Your task to perform on an android device: install app "Gmail" Image 0: 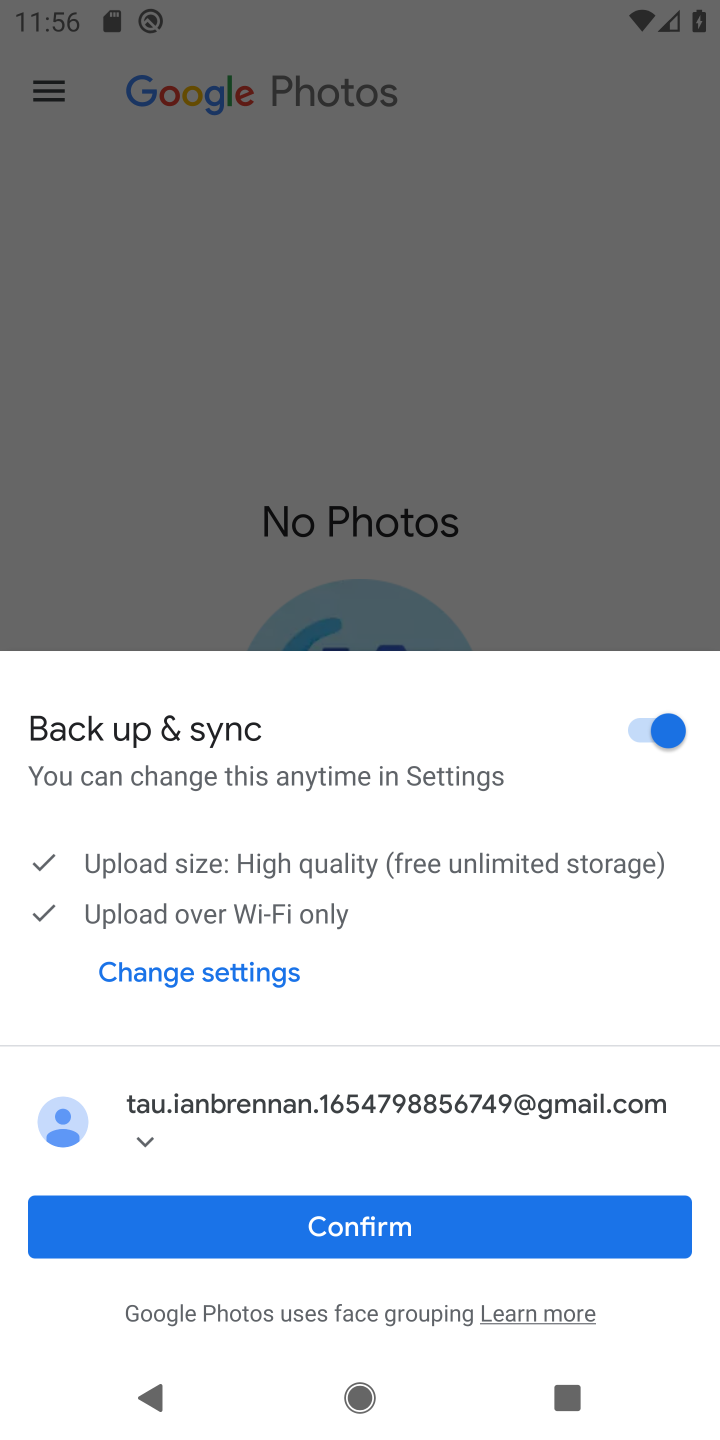
Step 0: press home button
Your task to perform on an android device: install app "Gmail" Image 1: 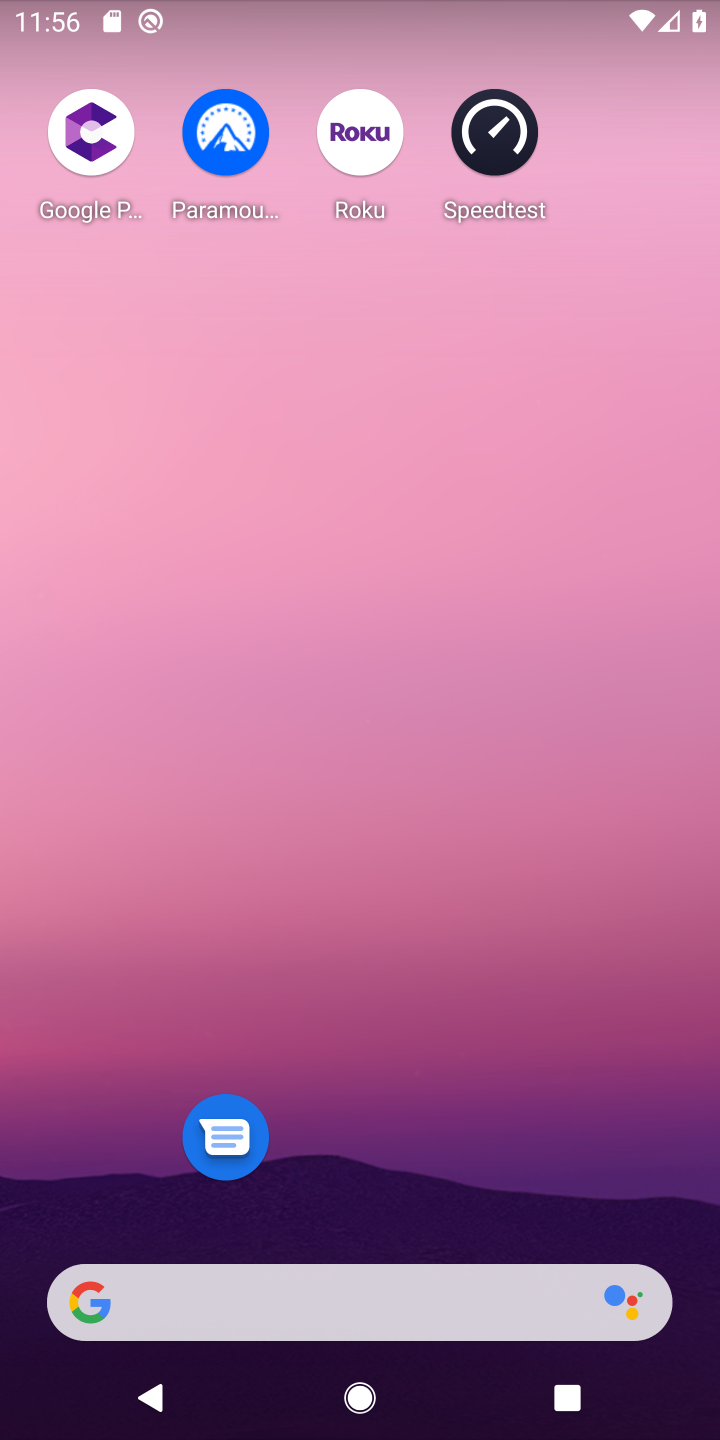
Step 1: drag from (463, 1000) to (525, 555)
Your task to perform on an android device: install app "Gmail" Image 2: 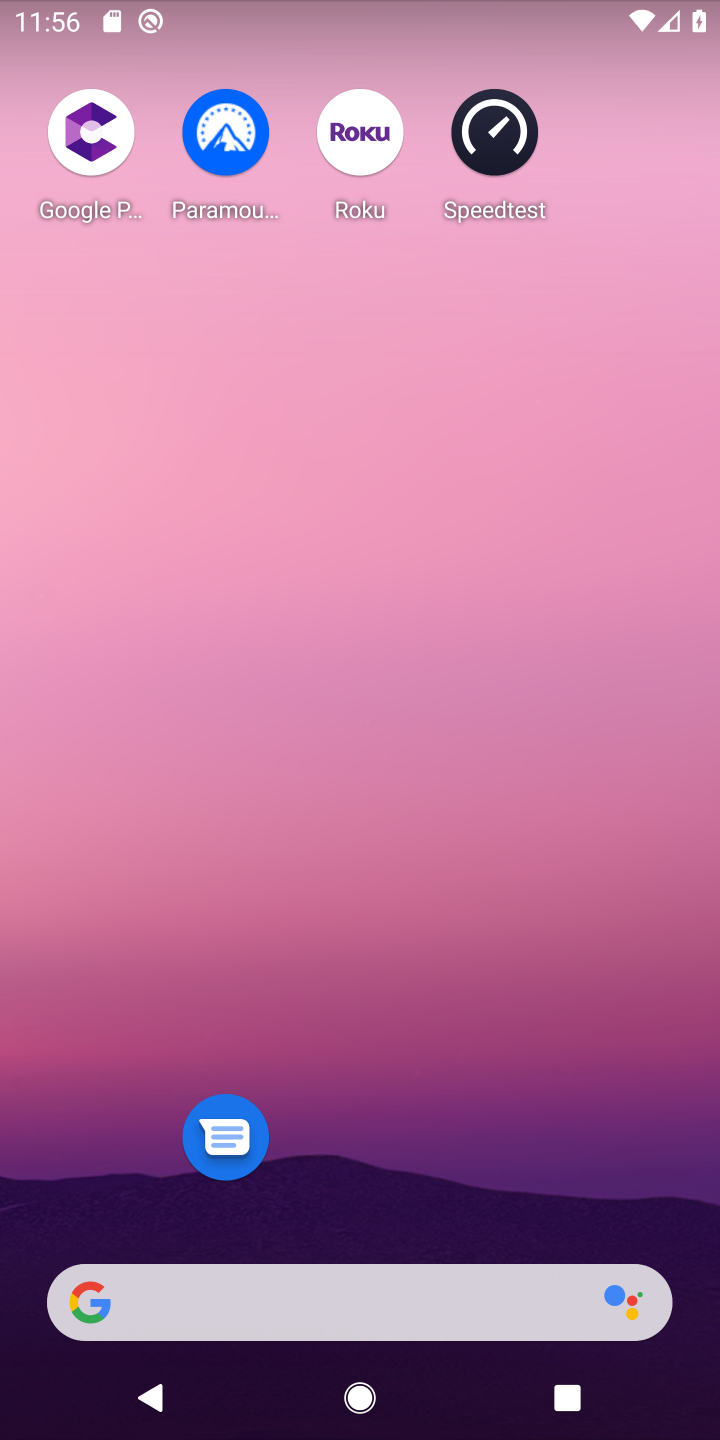
Step 2: drag from (446, 671) to (446, 452)
Your task to perform on an android device: install app "Gmail" Image 3: 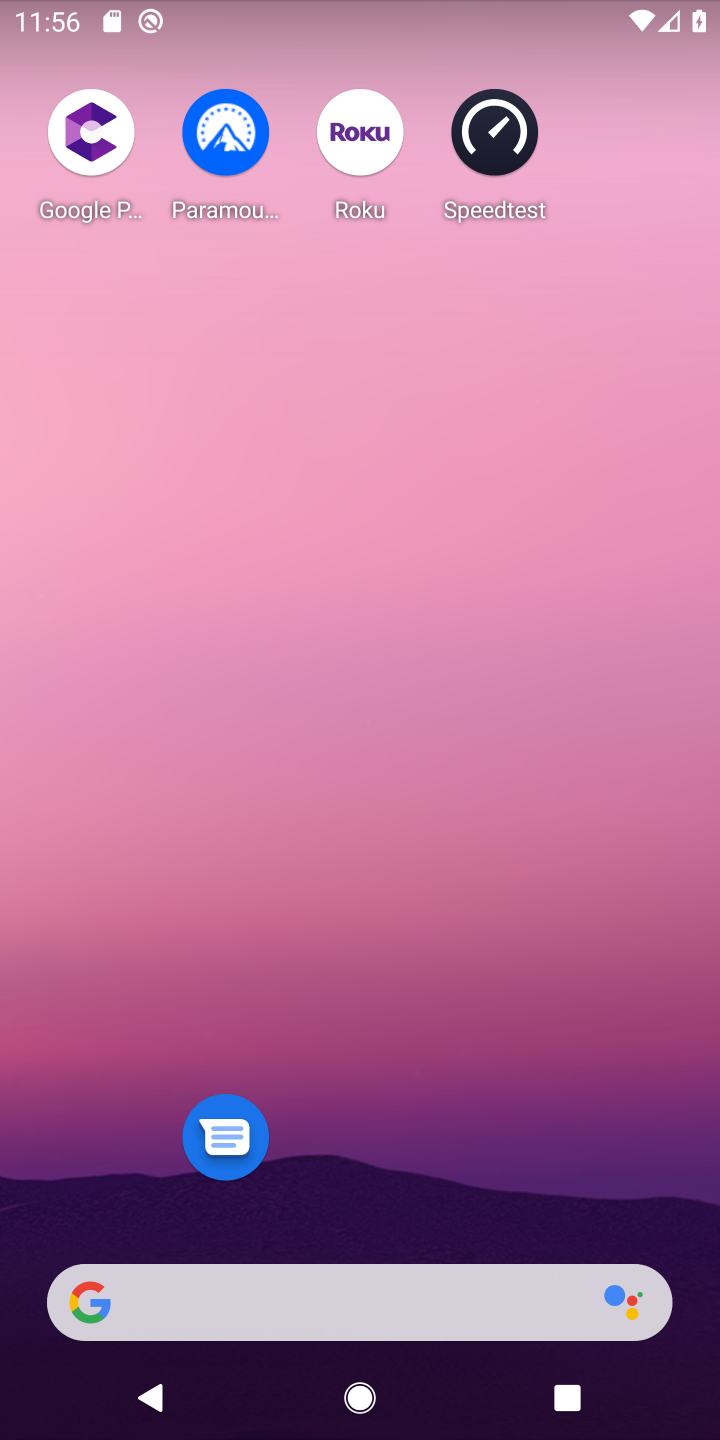
Step 3: drag from (387, 1111) to (477, 163)
Your task to perform on an android device: install app "Gmail" Image 4: 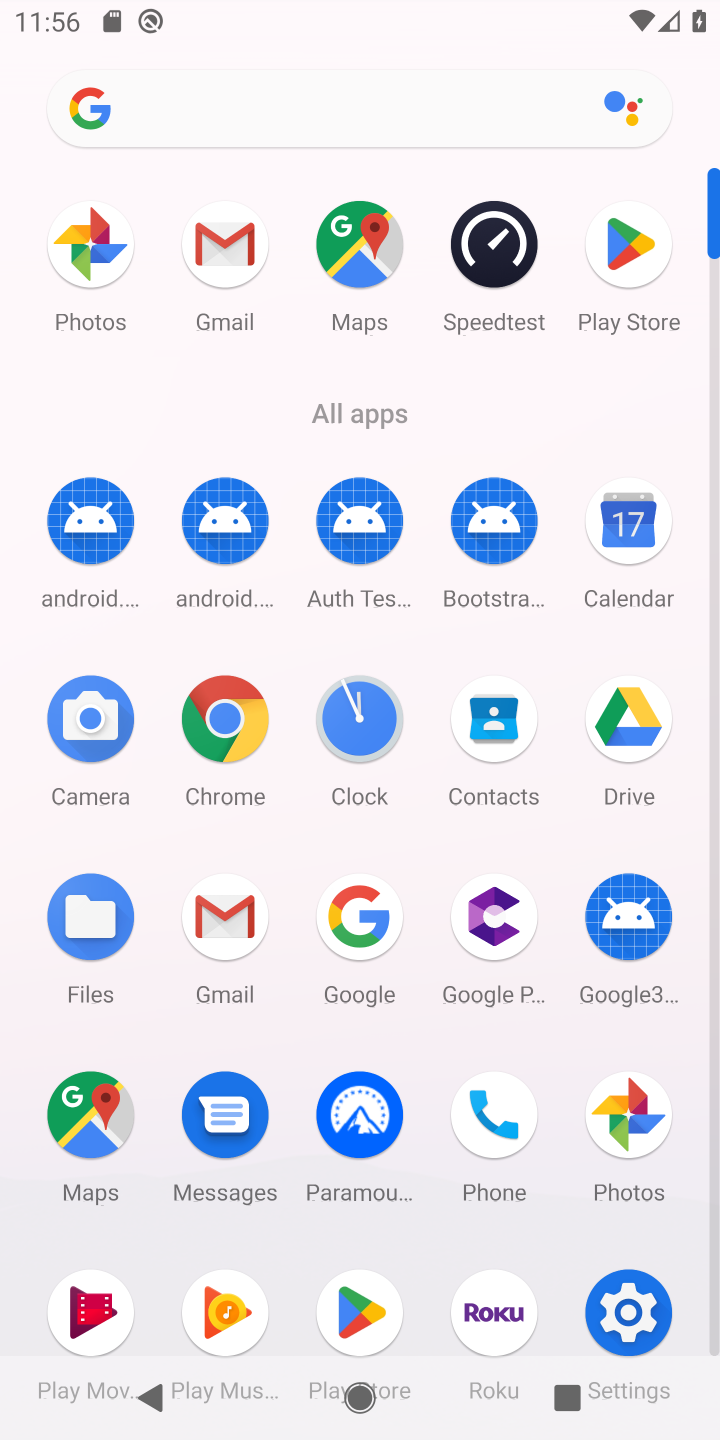
Step 4: click (624, 256)
Your task to perform on an android device: install app "Gmail" Image 5: 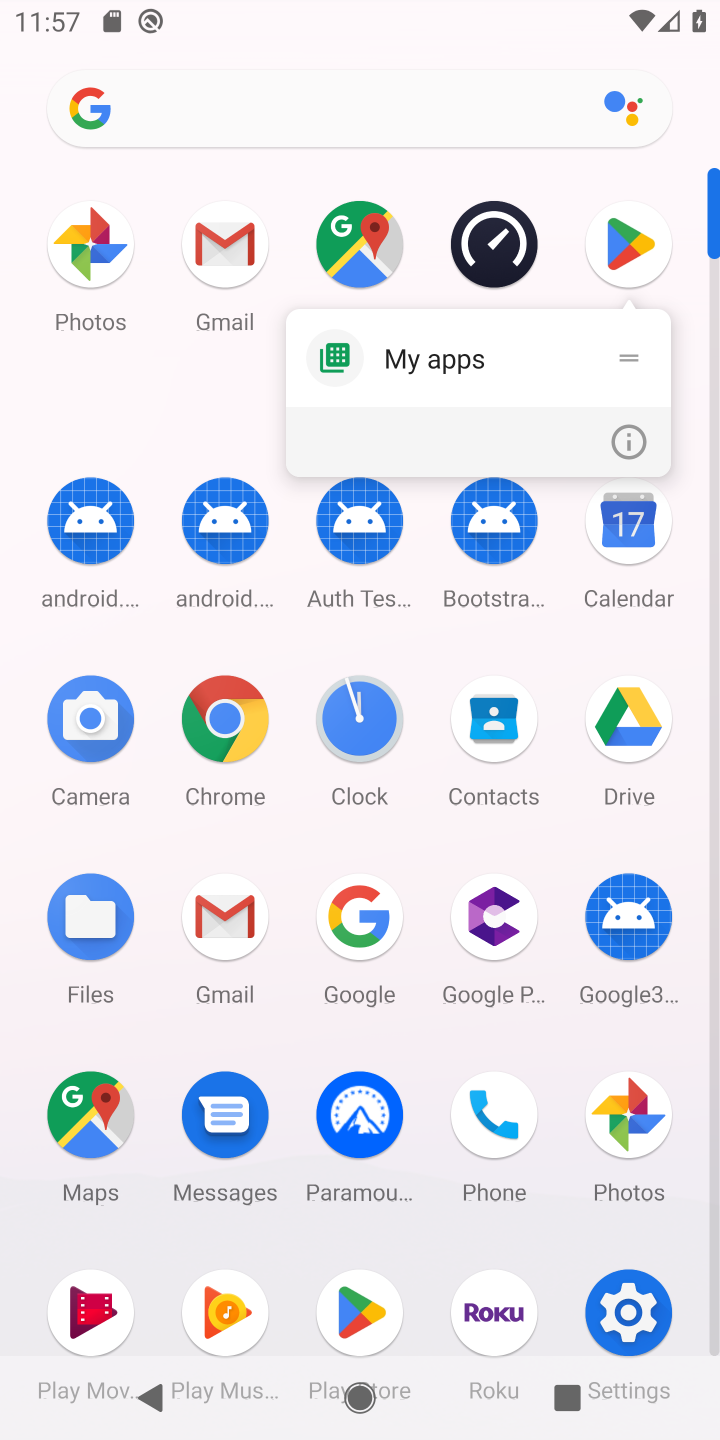
Step 5: click (624, 256)
Your task to perform on an android device: install app "Gmail" Image 6: 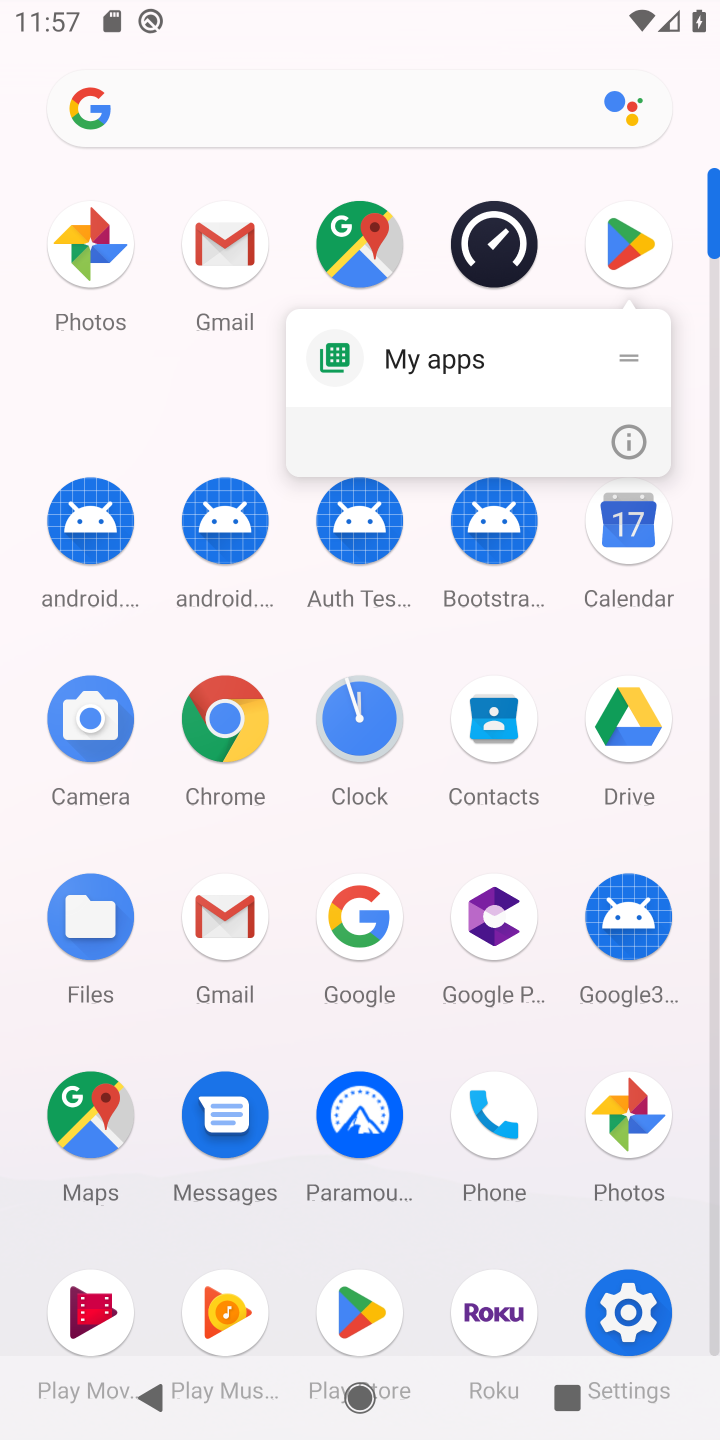
Step 6: click (617, 260)
Your task to perform on an android device: install app "Gmail" Image 7: 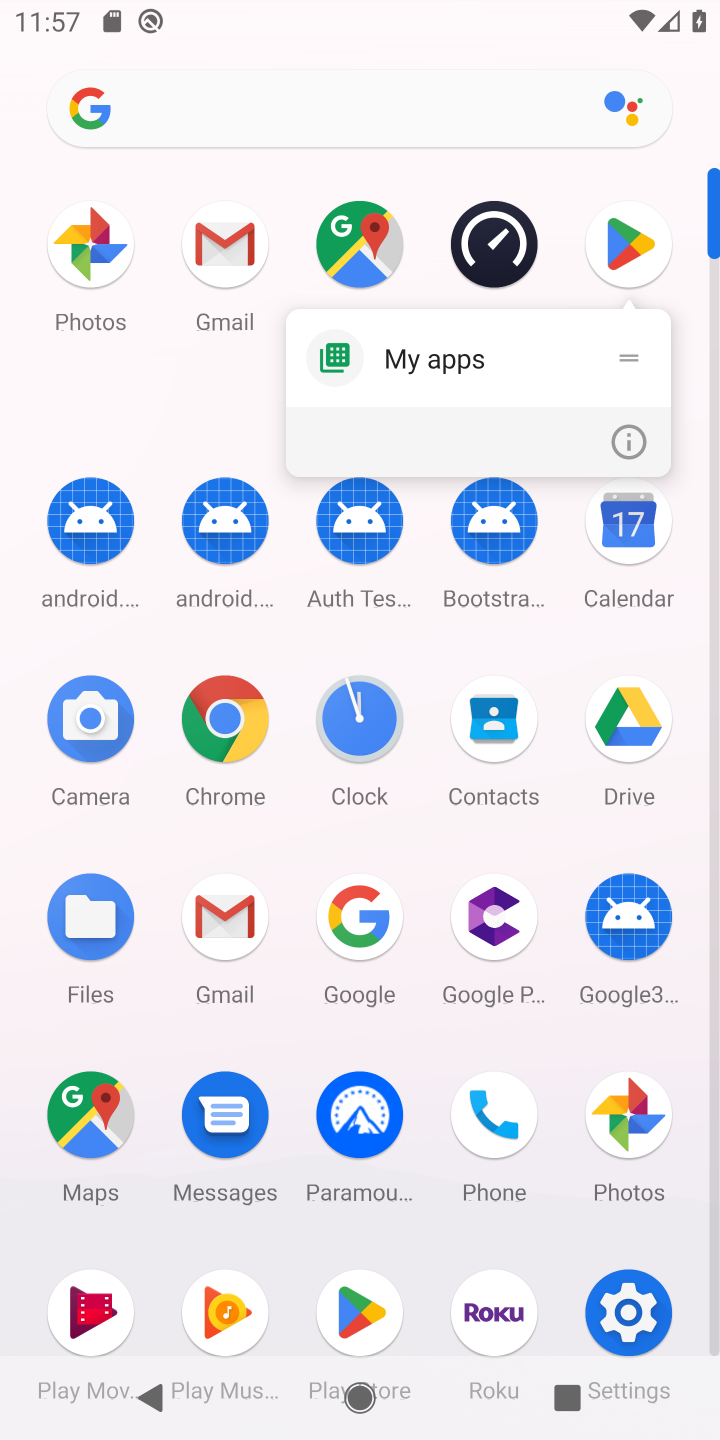
Step 7: click (617, 260)
Your task to perform on an android device: install app "Gmail" Image 8: 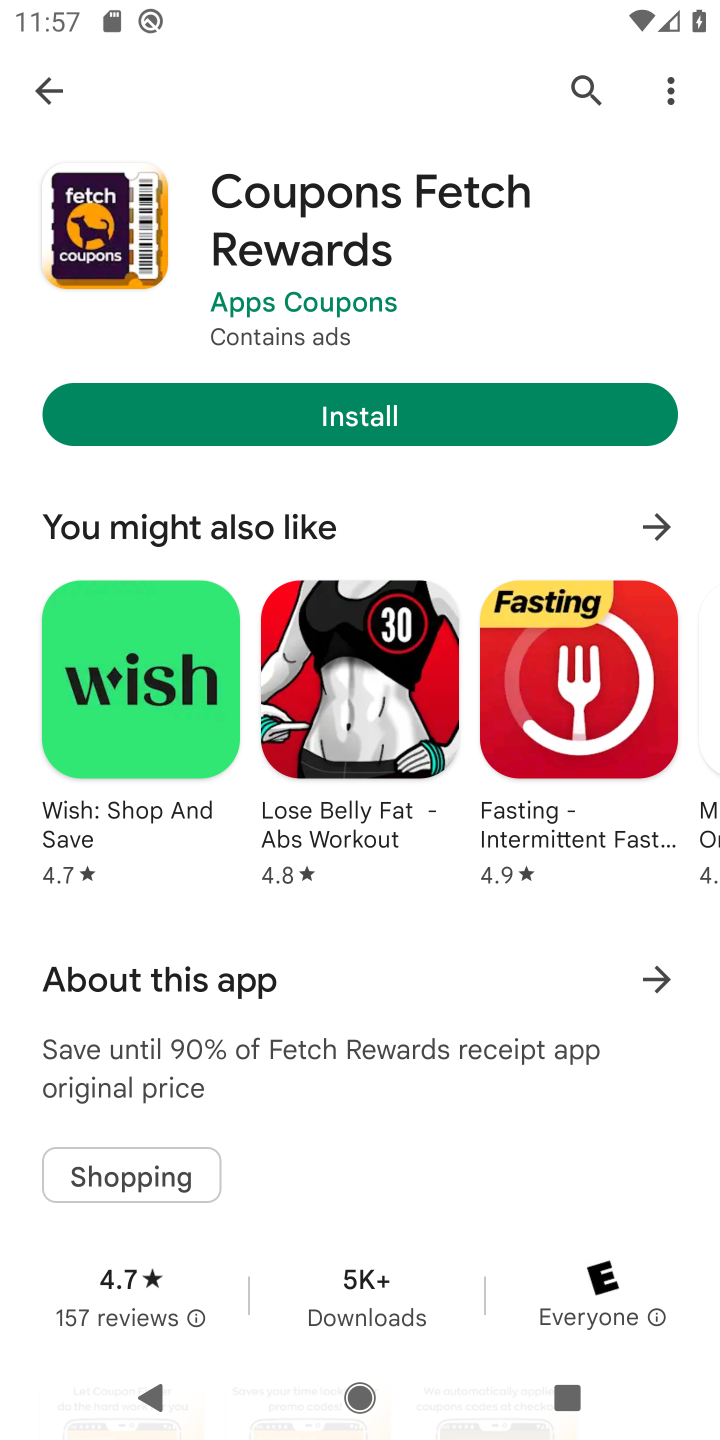
Step 8: click (570, 80)
Your task to perform on an android device: install app "Gmail" Image 9: 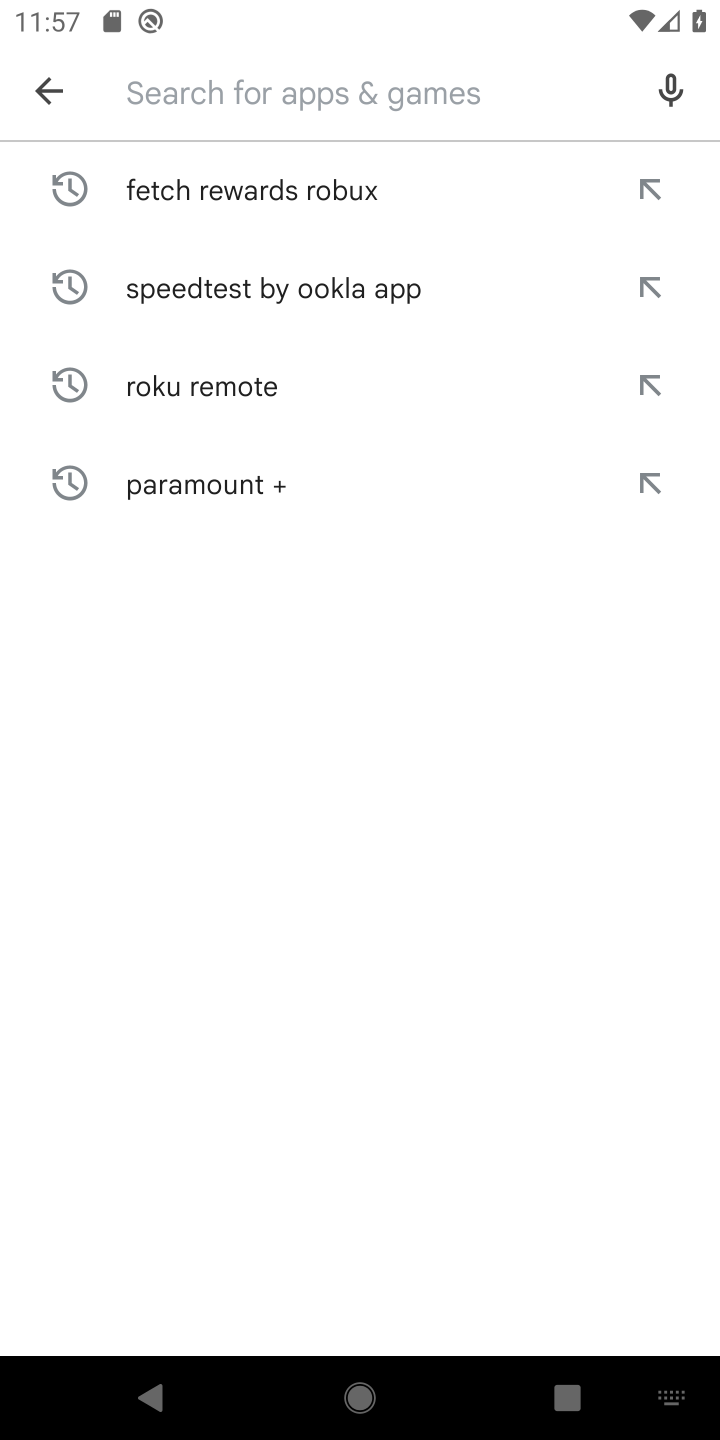
Step 9: click (428, 74)
Your task to perform on an android device: install app "Gmail" Image 10: 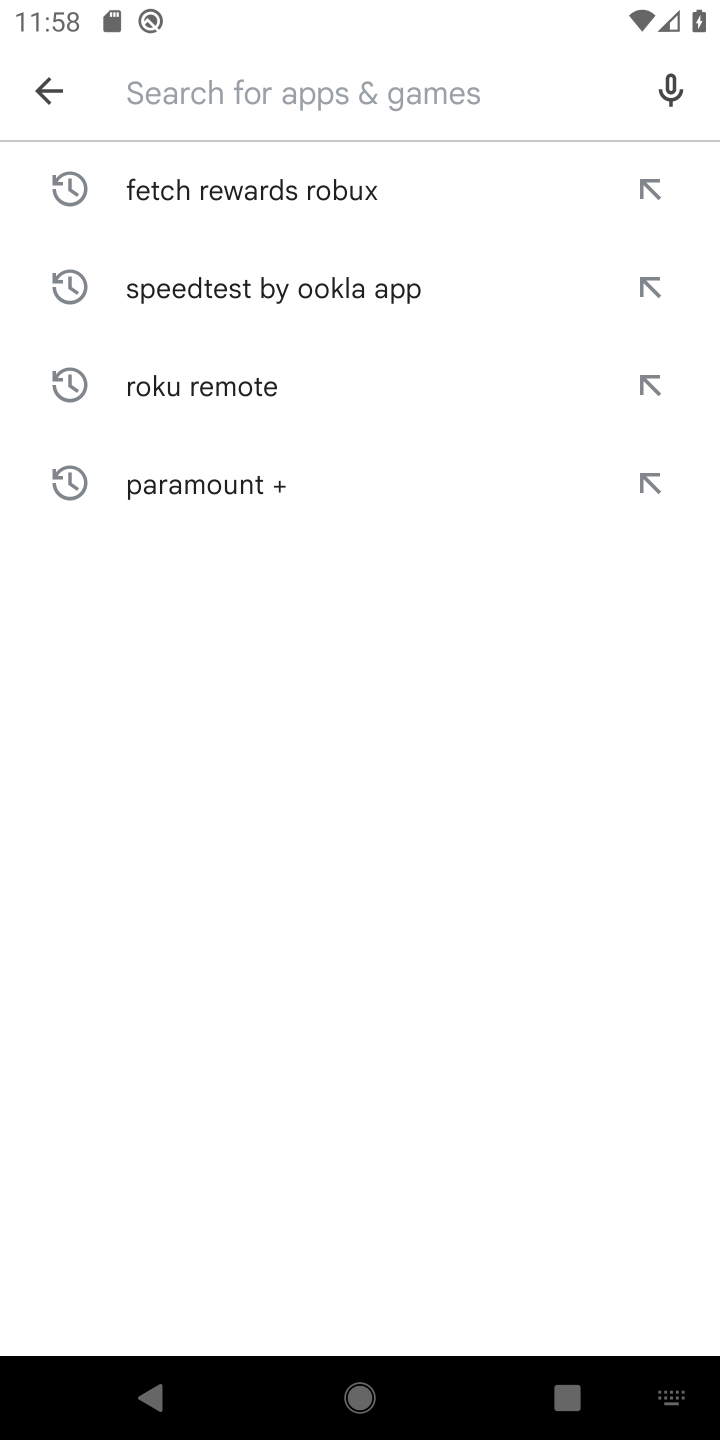
Step 10: type "Gmail "
Your task to perform on an android device: install app "Gmail" Image 11: 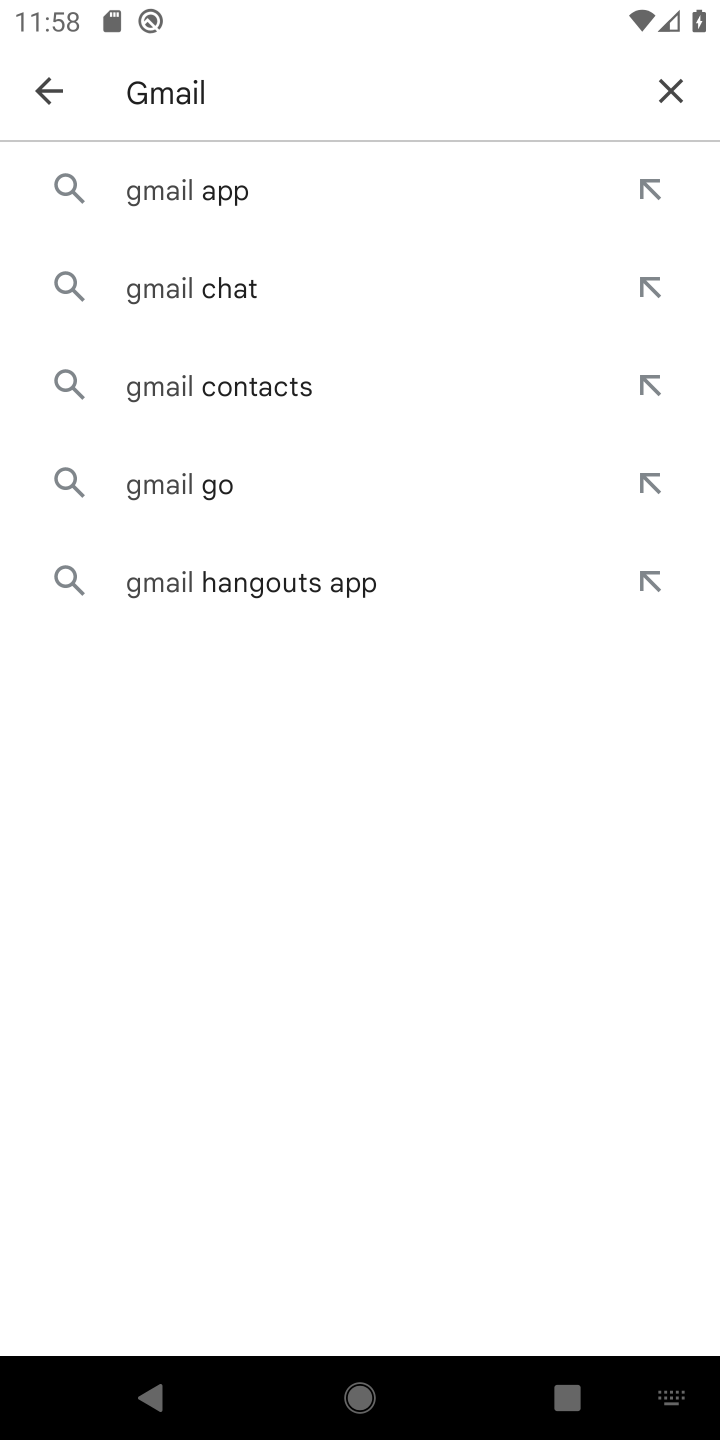
Step 11: click (314, 168)
Your task to perform on an android device: install app "Gmail" Image 12: 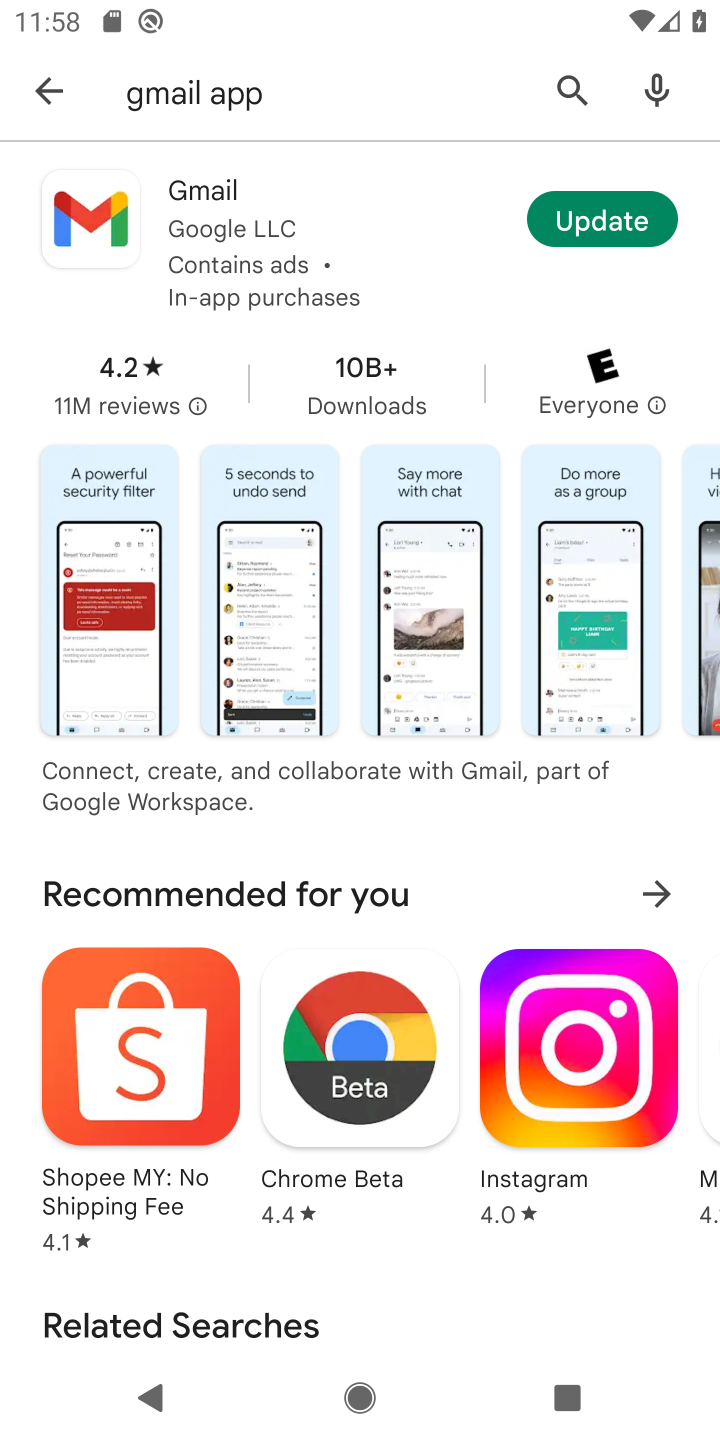
Step 12: click (403, 241)
Your task to perform on an android device: install app "Gmail" Image 13: 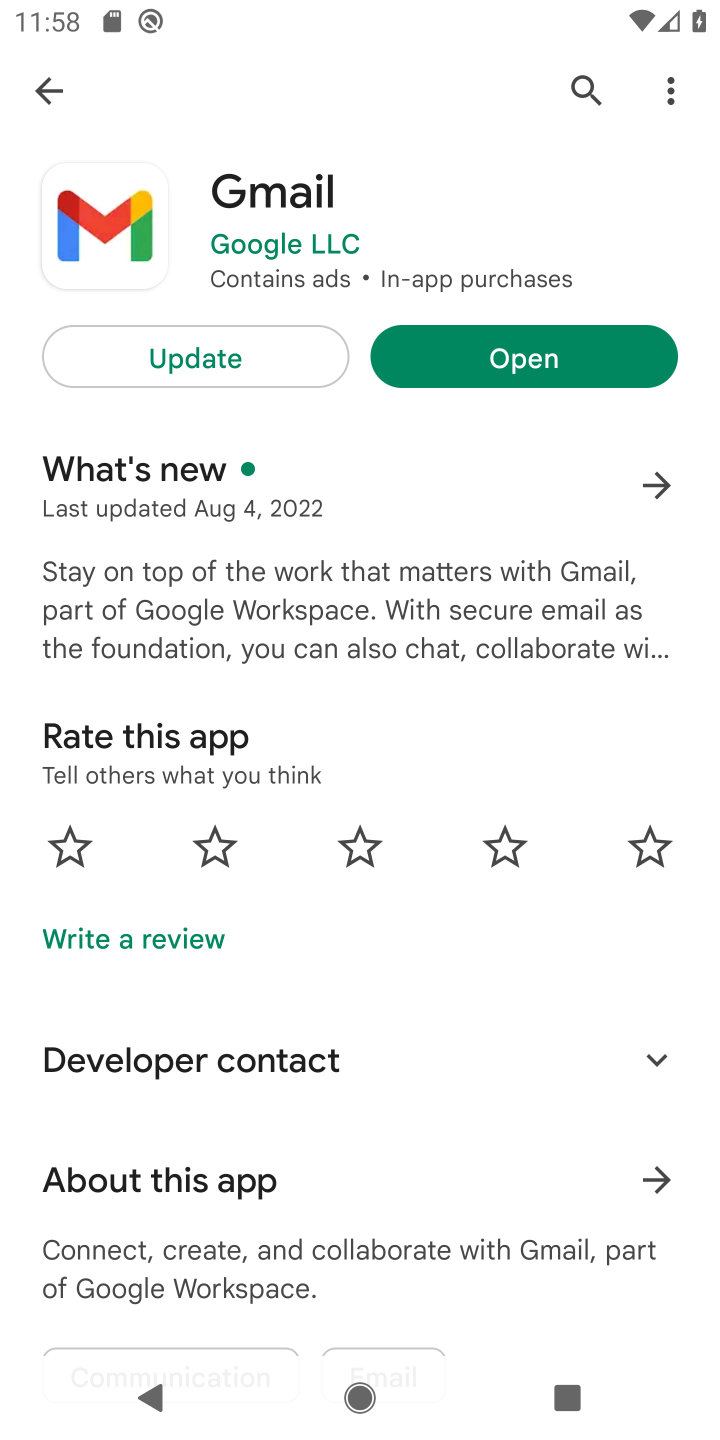
Step 13: click (451, 362)
Your task to perform on an android device: install app "Gmail" Image 14: 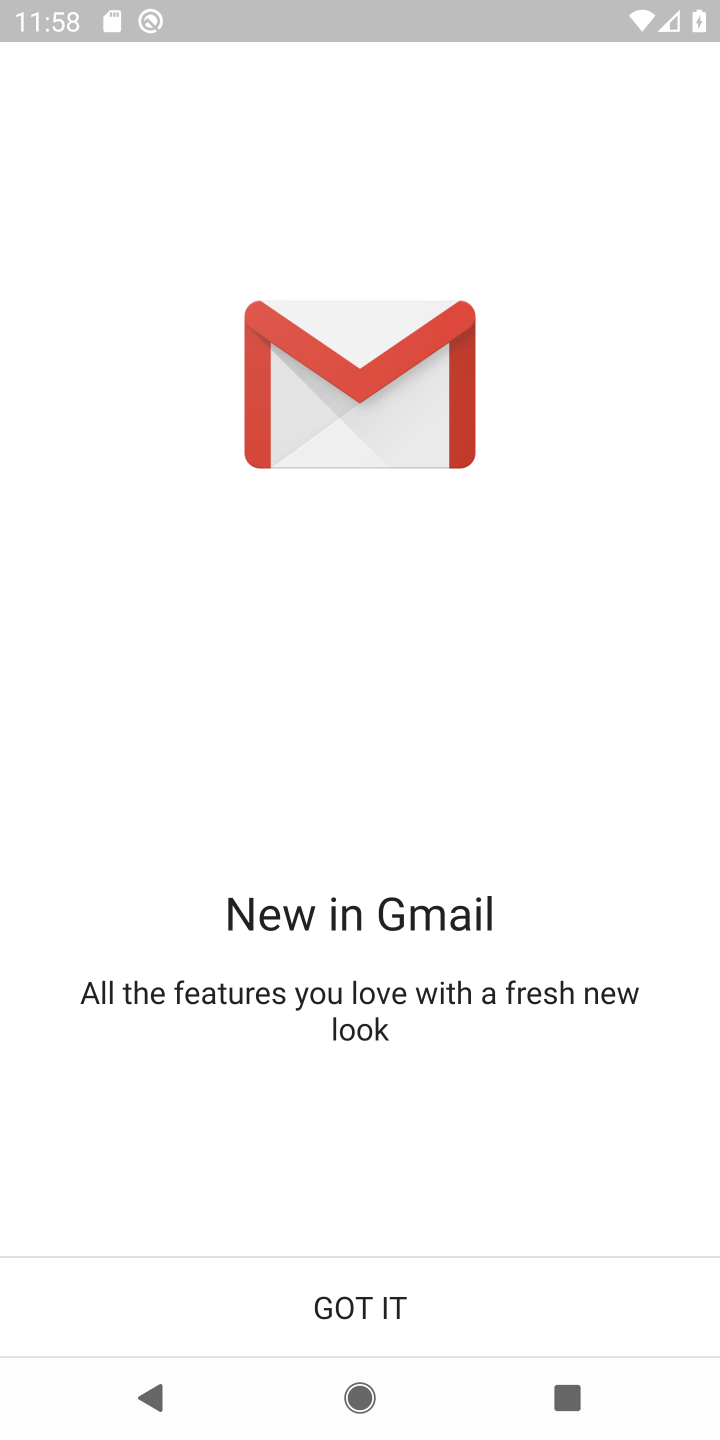
Step 14: task complete